Your task to perform on an android device: open a new tab in the chrome app Image 0: 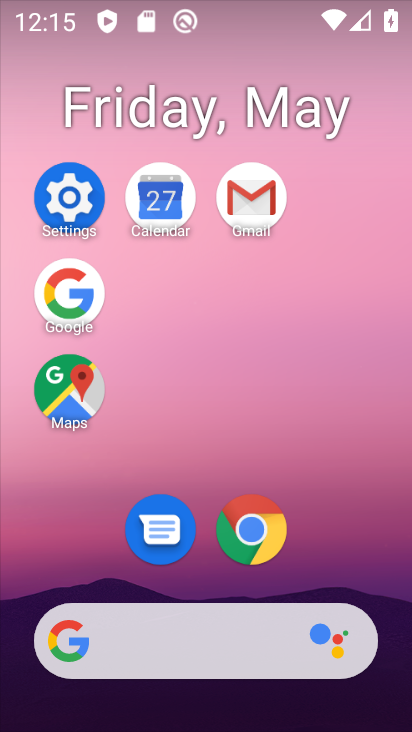
Step 0: click (257, 537)
Your task to perform on an android device: open a new tab in the chrome app Image 1: 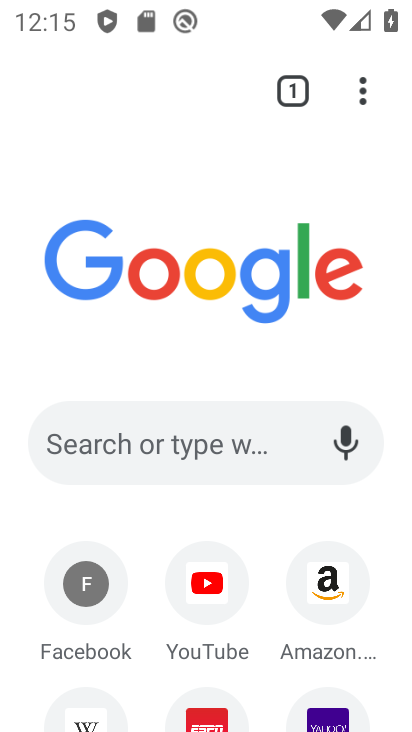
Step 1: click (303, 85)
Your task to perform on an android device: open a new tab in the chrome app Image 2: 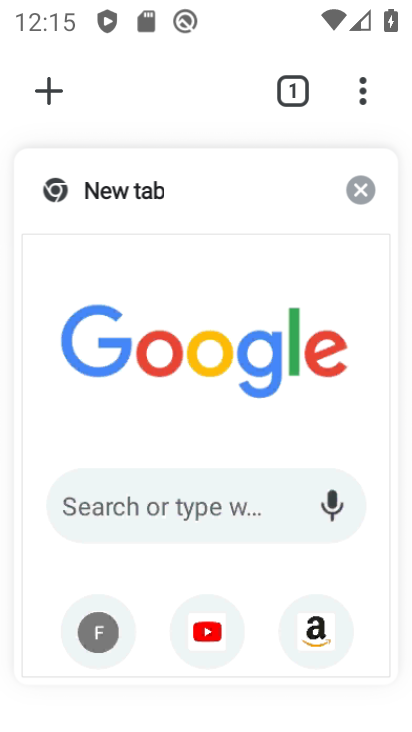
Step 2: click (65, 91)
Your task to perform on an android device: open a new tab in the chrome app Image 3: 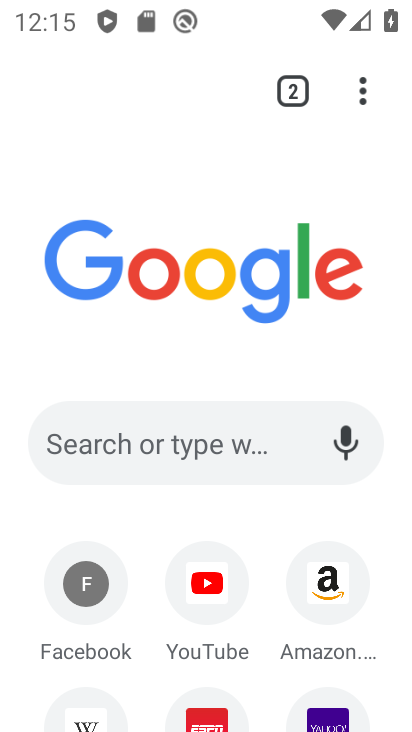
Step 3: task complete